Your task to perform on an android device: Search for vegetarian restaurants on Maps Image 0: 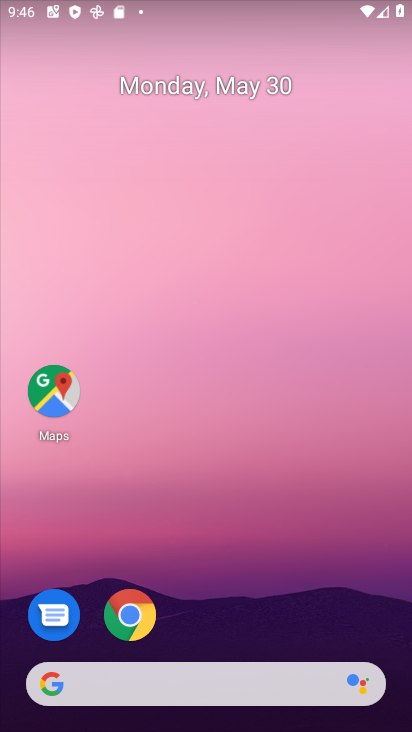
Step 0: click (70, 389)
Your task to perform on an android device: Search for vegetarian restaurants on Maps Image 1: 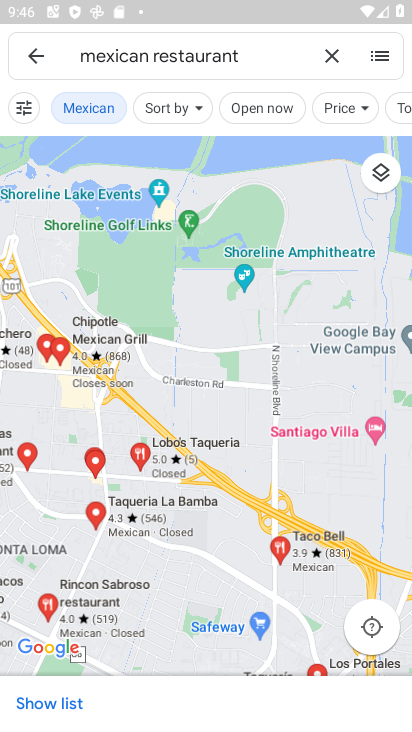
Step 1: click (330, 63)
Your task to perform on an android device: Search for vegetarian restaurants on Maps Image 2: 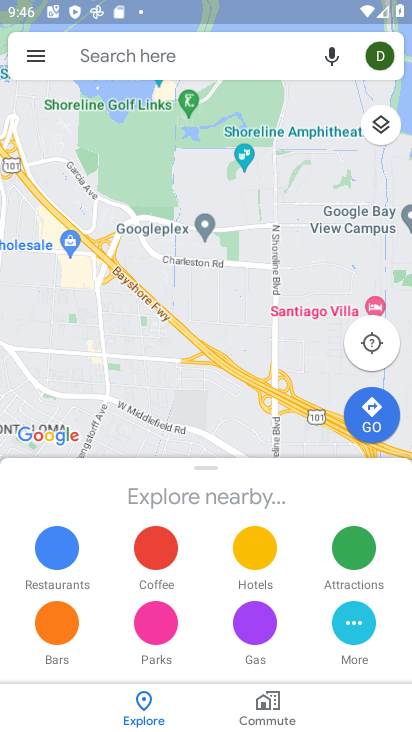
Step 2: click (185, 59)
Your task to perform on an android device: Search for vegetarian restaurants on Maps Image 3: 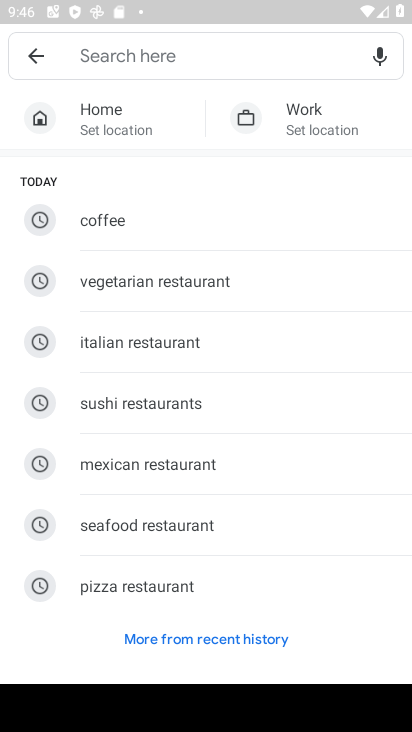
Step 3: click (166, 278)
Your task to perform on an android device: Search for vegetarian restaurants on Maps Image 4: 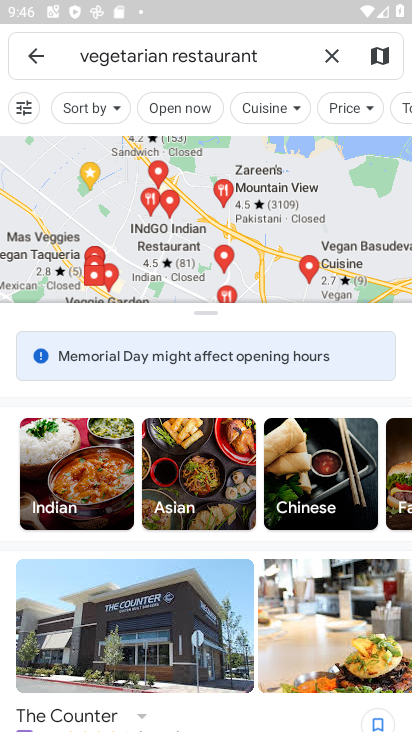
Step 4: task complete